Your task to perform on an android device: stop showing notifications on the lock screen Image 0: 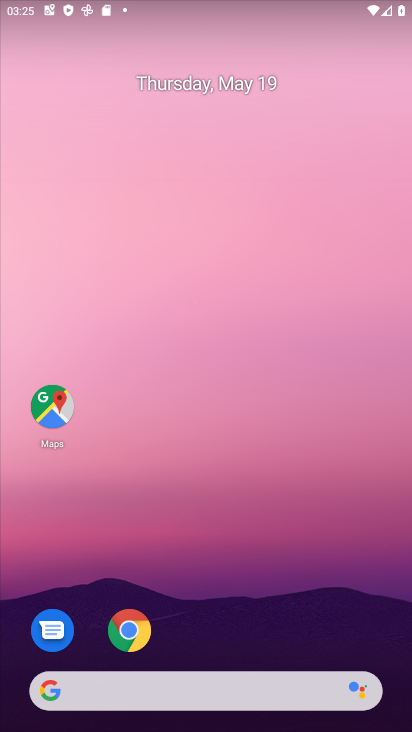
Step 0: drag from (391, 640) to (324, 72)
Your task to perform on an android device: stop showing notifications on the lock screen Image 1: 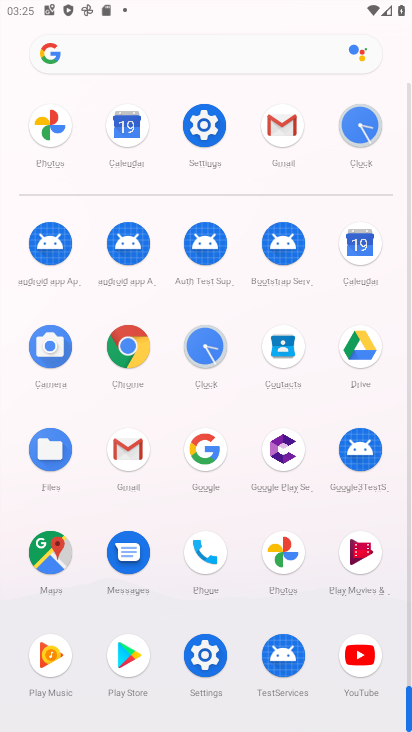
Step 1: click (203, 654)
Your task to perform on an android device: stop showing notifications on the lock screen Image 2: 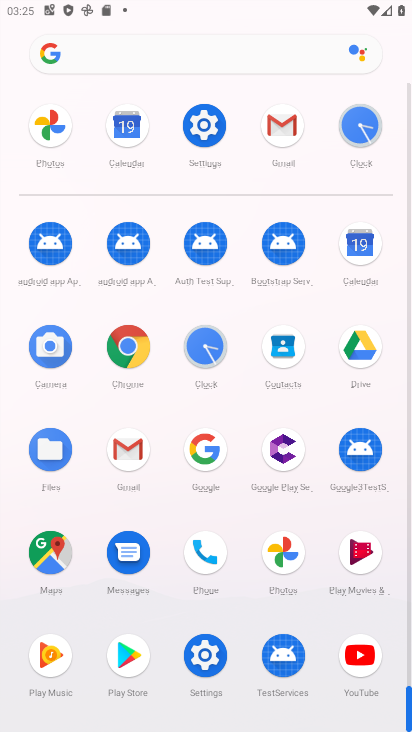
Step 2: click (203, 654)
Your task to perform on an android device: stop showing notifications on the lock screen Image 3: 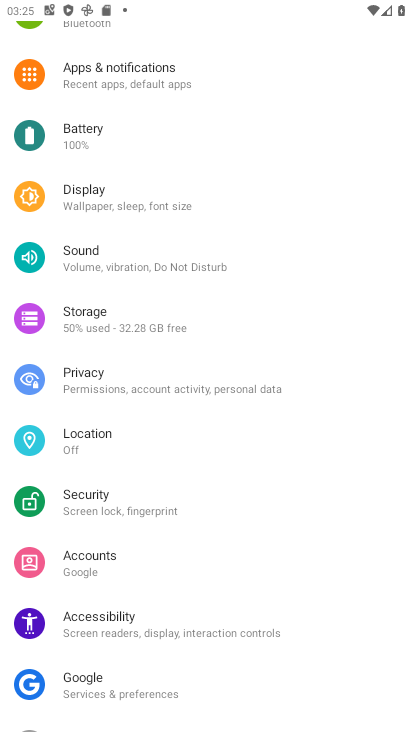
Step 3: click (138, 62)
Your task to perform on an android device: stop showing notifications on the lock screen Image 4: 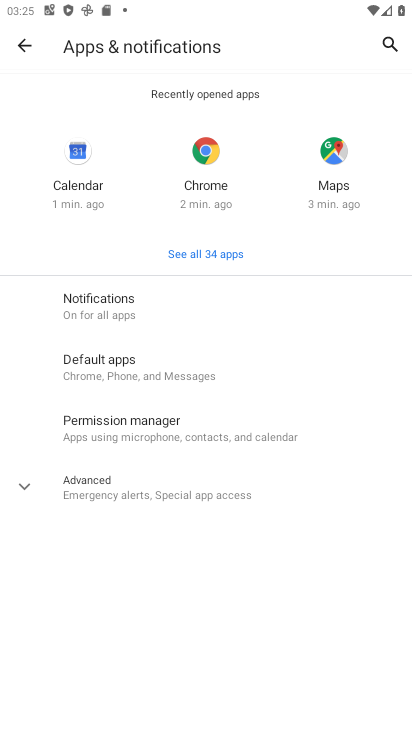
Step 4: click (99, 304)
Your task to perform on an android device: stop showing notifications on the lock screen Image 5: 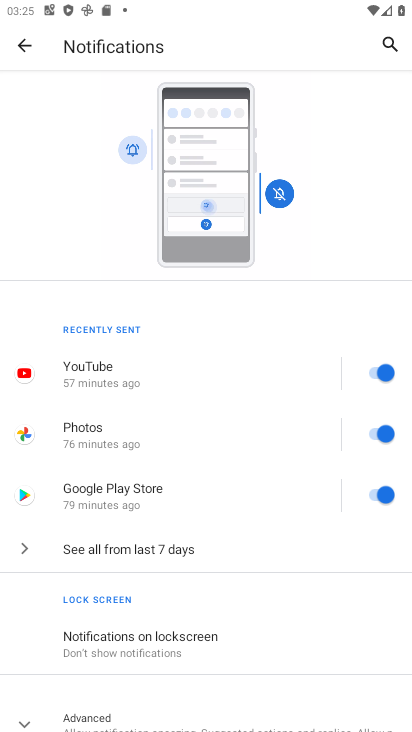
Step 5: click (172, 641)
Your task to perform on an android device: stop showing notifications on the lock screen Image 6: 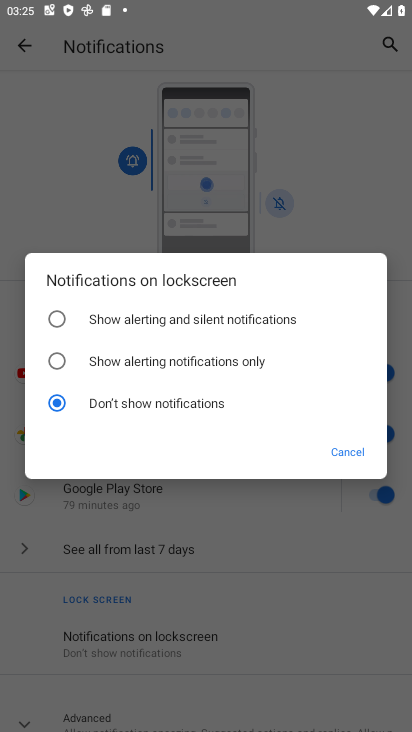
Step 6: task complete